Your task to perform on an android device: turn notification dots on Image 0: 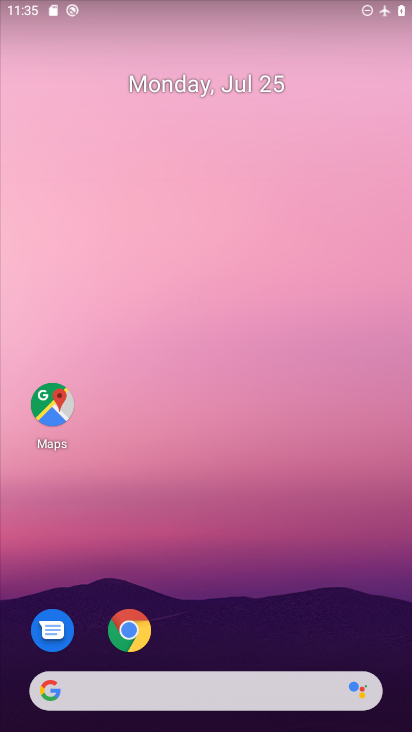
Step 0: drag from (261, 664) to (242, 11)
Your task to perform on an android device: turn notification dots on Image 1: 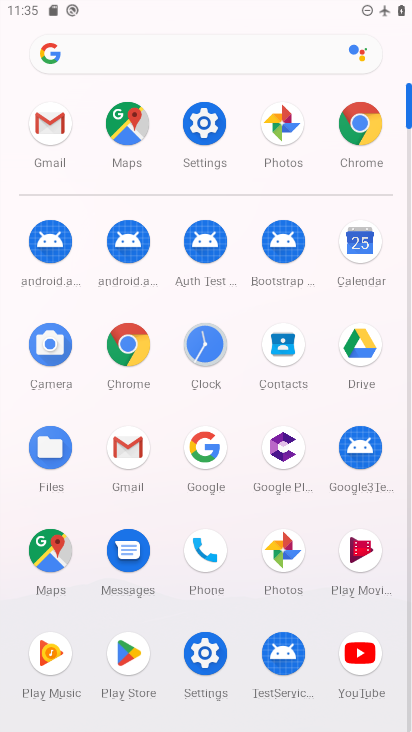
Step 1: click (201, 122)
Your task to perform on an android device: turn notification dots on Image 2: 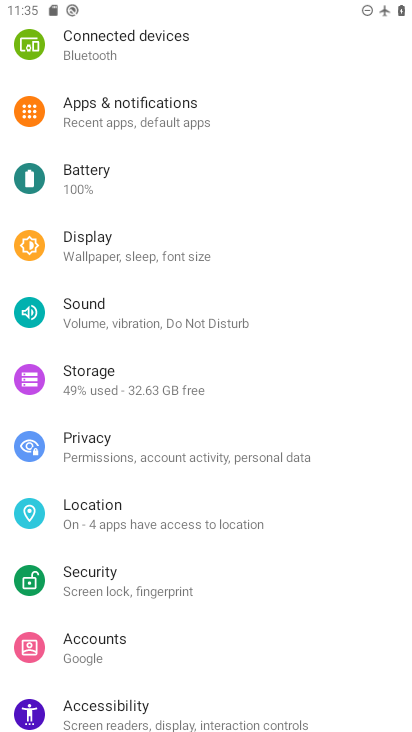
Step 2: click (143, 117)
Your task to perform on an android device: turn notification dots on Image 3: 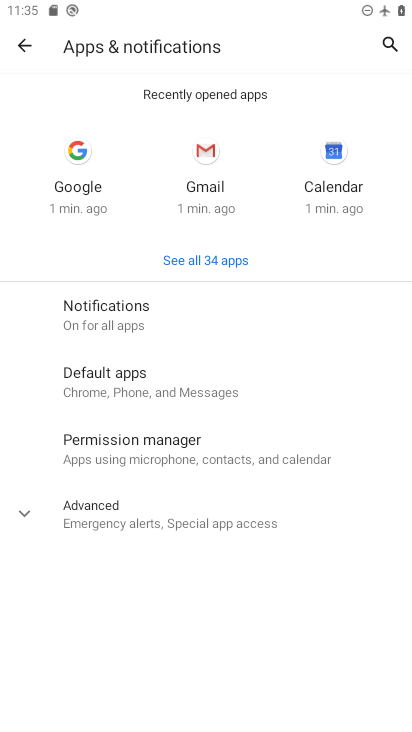
Step 3: click (88, 322)
Your task to perform on an android device: turn notification dots on Image 4: 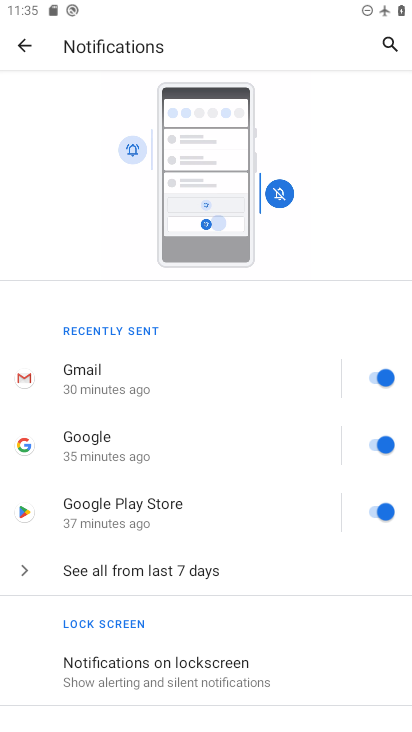
Step 4: drag from (165, 592) to (137, 219)
Your task to perform on an android device: turn notification dots on Image 5: 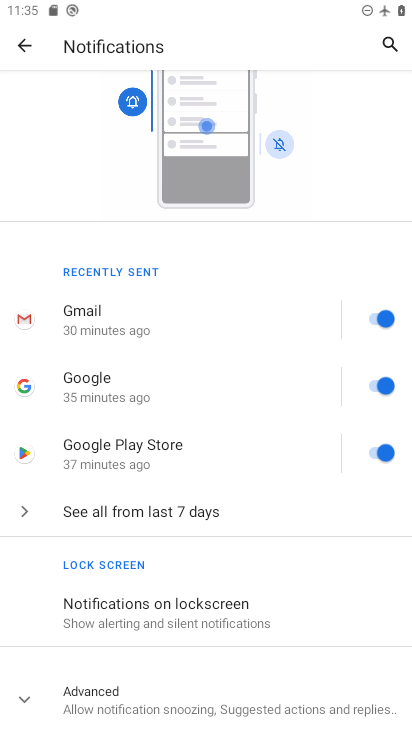
Step 5: click (23, 705)
Your task to perform on an android device: turn notification dots on Image 6: 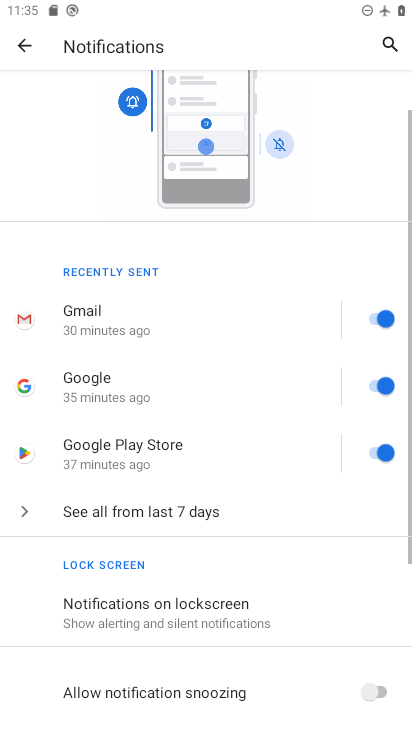
Step 6: task complete